Your task to perform on an android device: open a new tab in the chrome app Image 0: 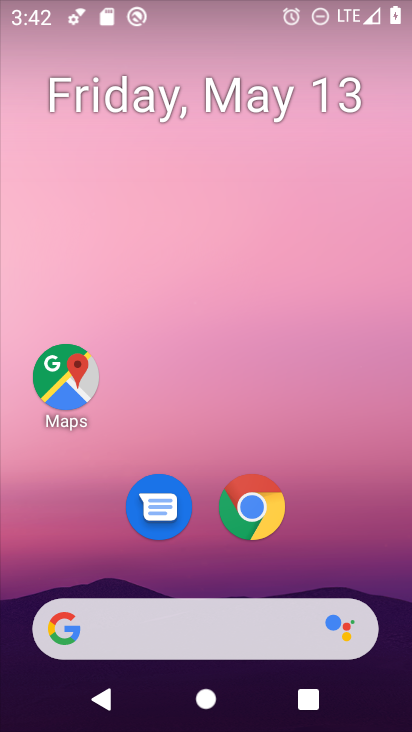
Step 0: click (235, 526)
Your task to perform on an android device: open a new tab in the chrome app Image 1: 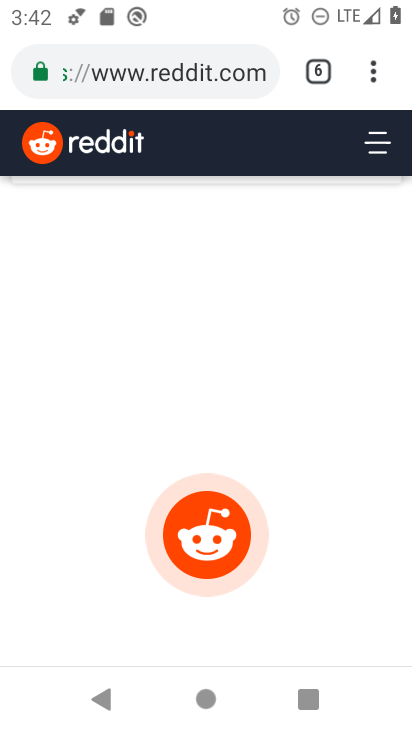
Step 1: click (364, 68)
Your task to perform on an android device: open a new tab in the chrome app Image 2: 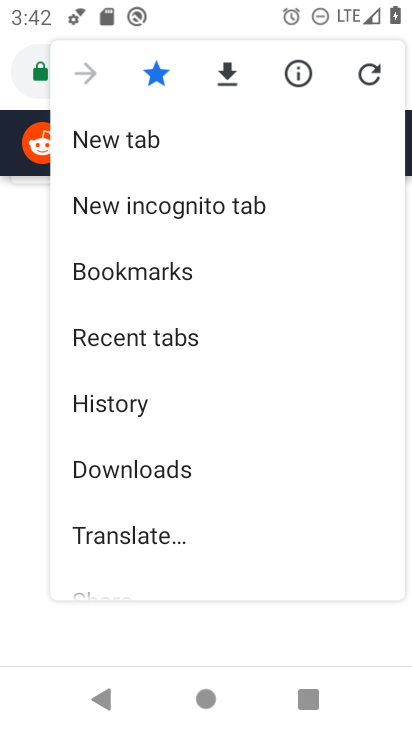
Step 2: click (188, 138)
Your task to perform on an android device: open a new tab in the chrome app Image 3: 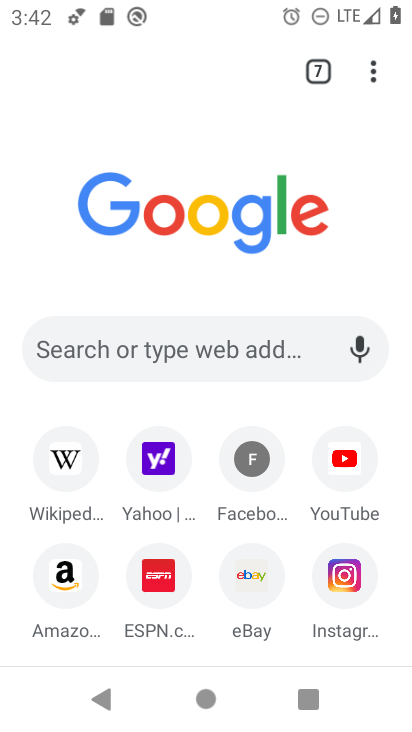
Step 3: task complete